Your task to perform on an android device: check out phone information Image 0: 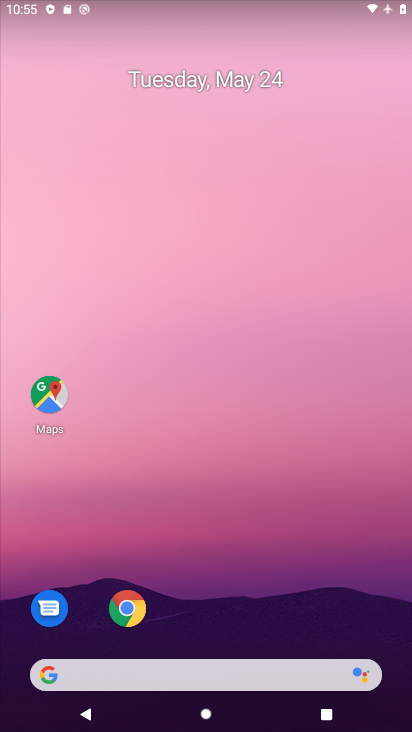
Step 0: drag from (378, 627) to (312, 45)
Your task to perform on an android device: check out phone information Image 1: 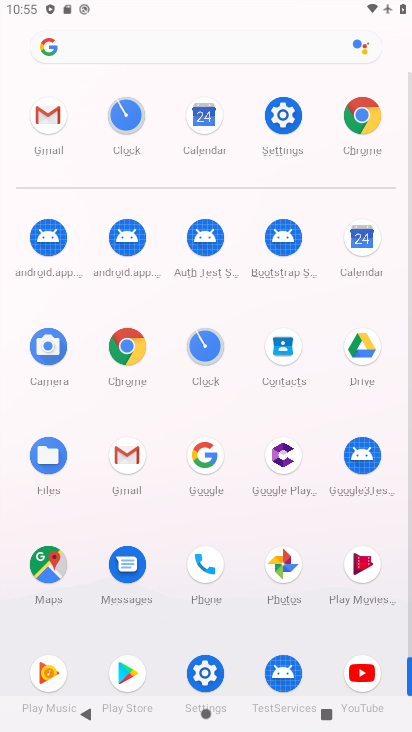
Step 1: click (206, 671)
Your task to perform on an android device: check out phone information Image 2: 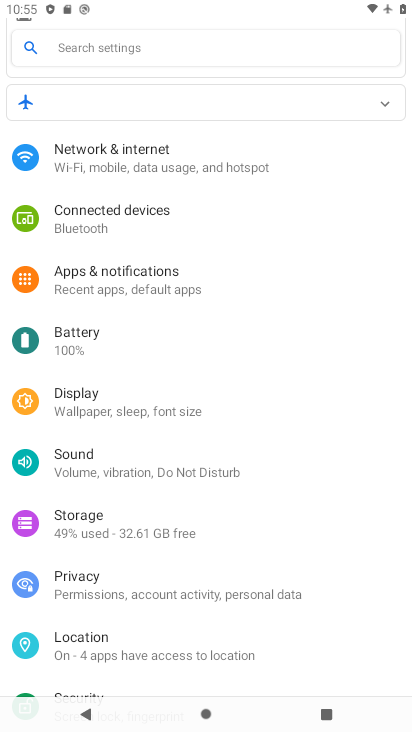
Step 2: drag from (342, 636) to (285, 156)
Your task to perform on an android device: check out phone information Image 3: 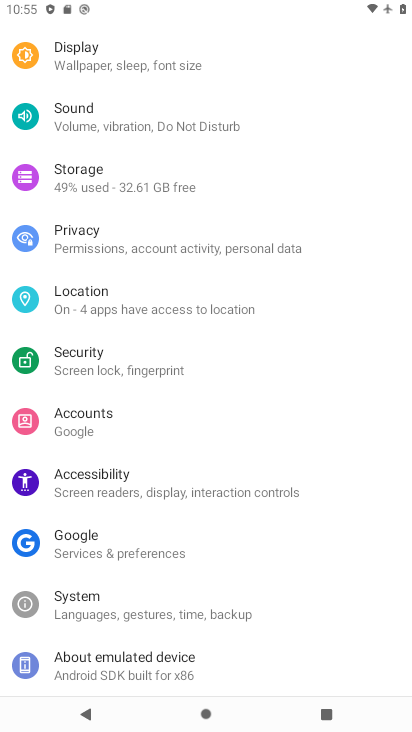
Step 3: click (89, 665)
Your task to perform on an android device: check out phone information Image 4: 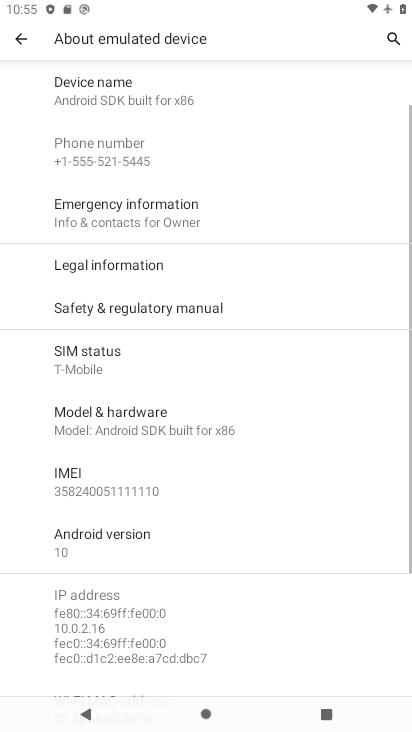
Step 4: task complete